Your task to perform on an android device: change notifications settings Image 0: 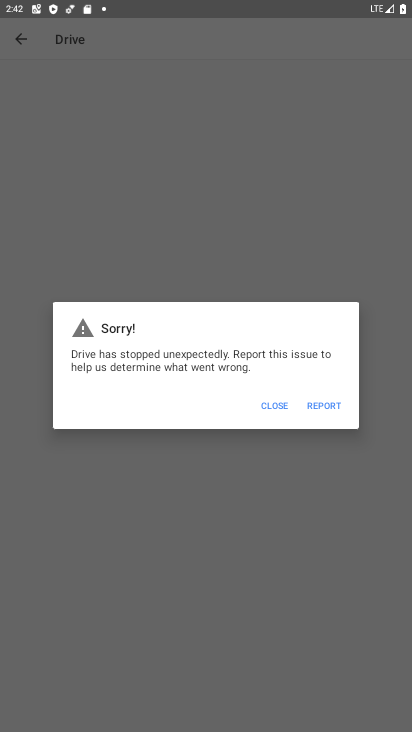
Step 0: press home button
Your task to perform on an android device: change notifications settings Image 1: 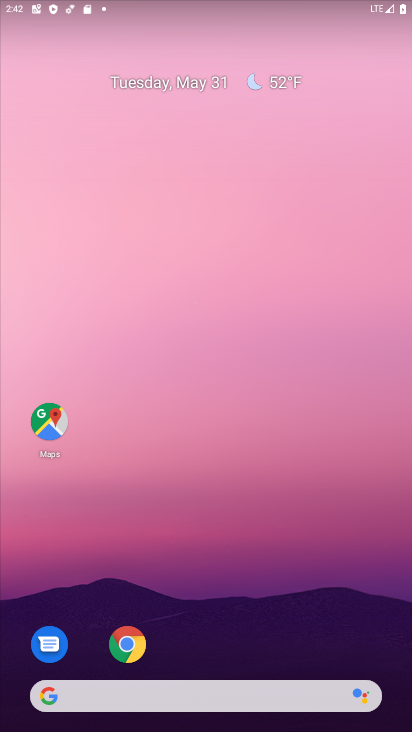
Step 1: drag from (234, 628) to (244, 139)
Your task to perform on an android device: change notifications settings Image 2: 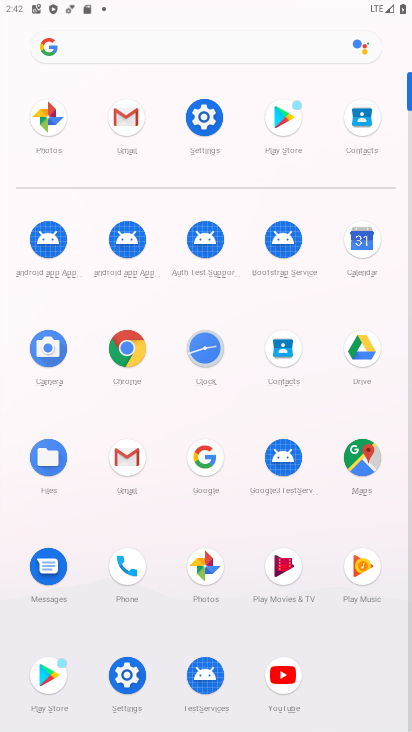
Step 2: click (196, 115)
Your task to perform on an android device: change notifications settings Image 3: 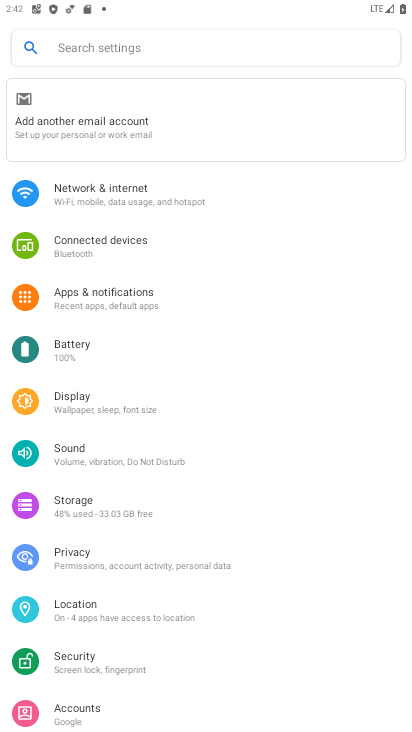
Step 3: click (129, 297)
Your task to perform on an android device: change notifications settings Image 4: 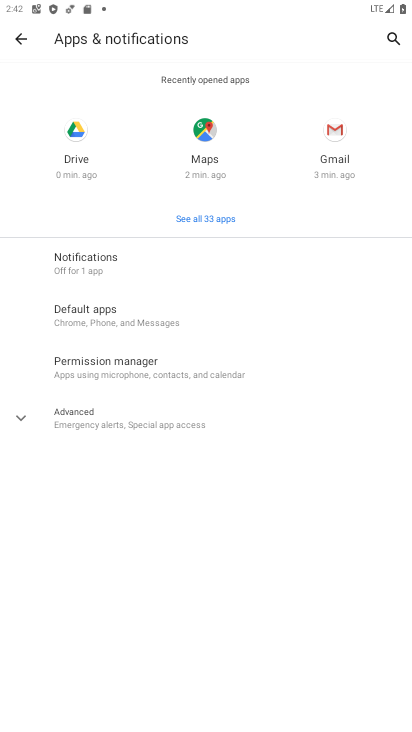
Step 4: click (23, 419)
Your task to perform on an android device: change notifications settings Image 5: 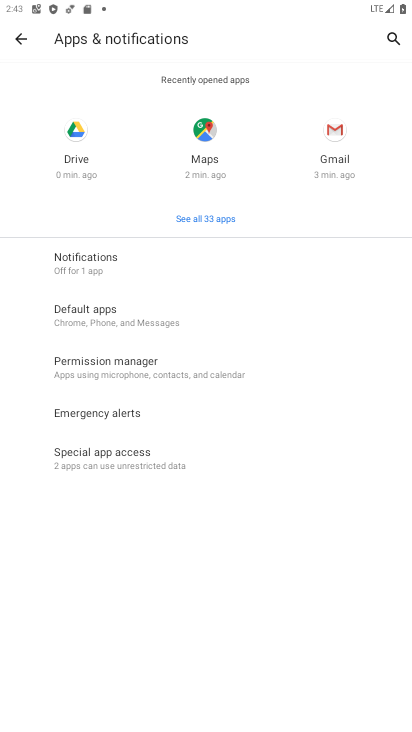
Step 5: click (100, 258)
Your task to perform on an android device: change notifications settings Image 6: 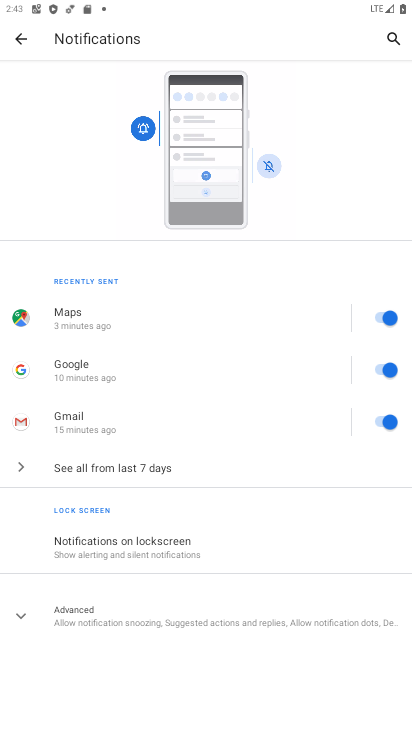
Step 6: click (111, 619)
Your task to perform on an android device: change notifications settings Image 7: 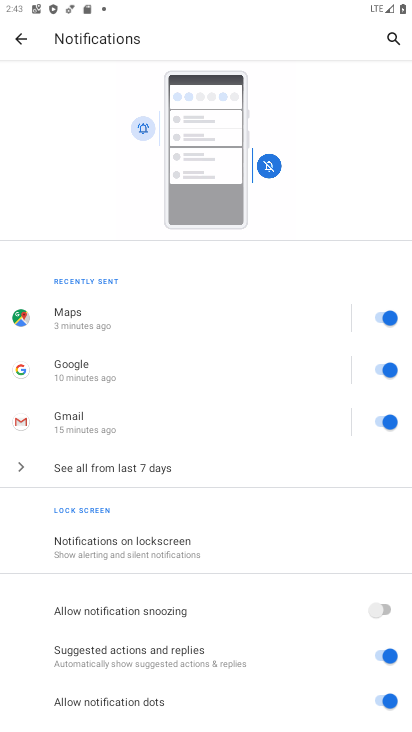
Step 7: drag from (191, 572) to (134, 265)
Your task to perform on an android device: change notifications settings Image 8: 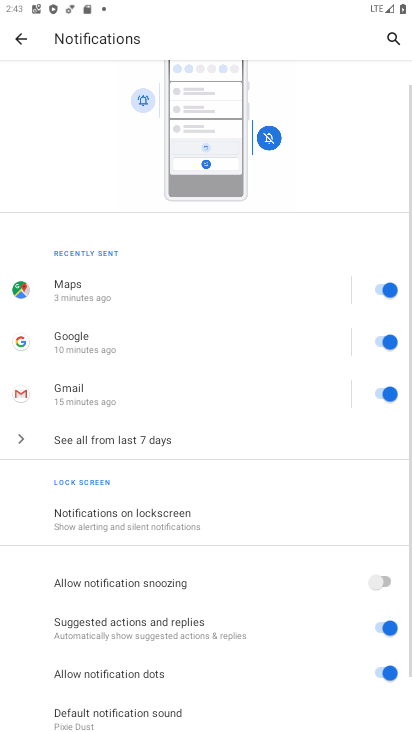
Step 8: click (104, 517)
Your task to perform on an android device: change notifications settings Image 9: 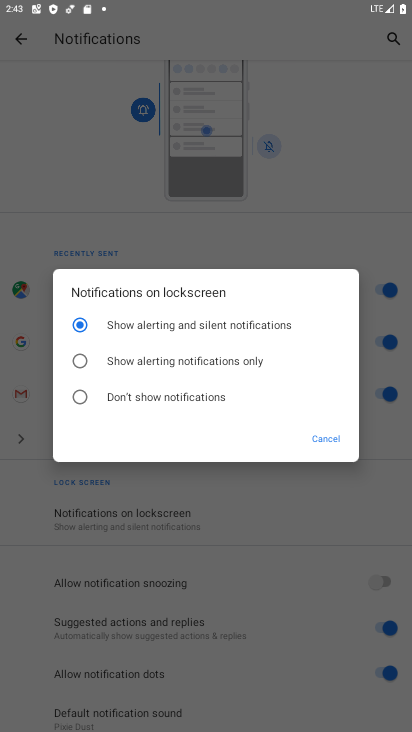
Step 9: click (105, 505)
Your task to perform on an android device: change notifications settings Image 10: 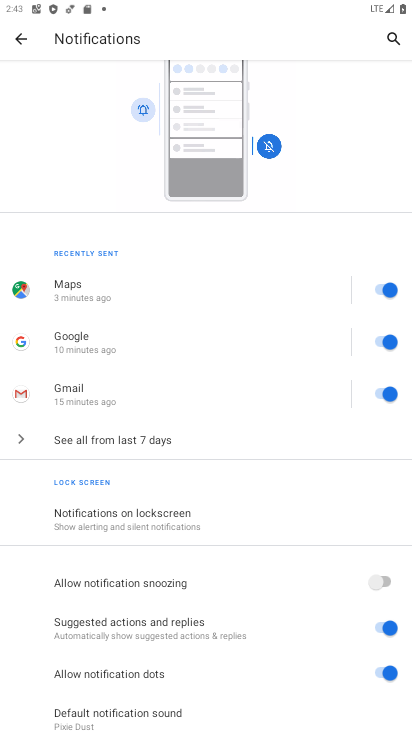
Step 10: task complete